Your task to perform on an android device: Go to Reddit.com Image 0: 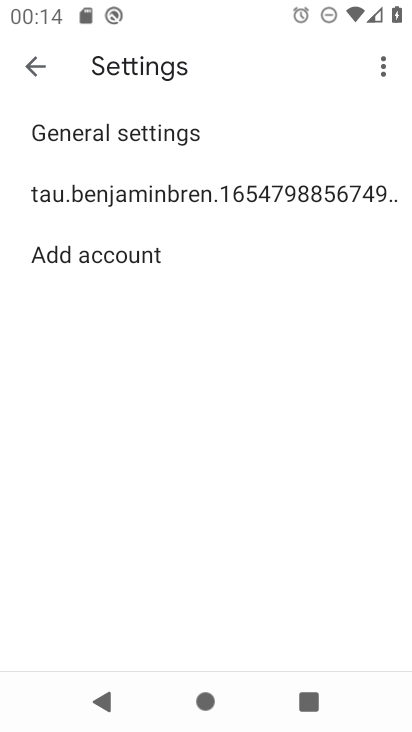
Step 0: press home button
Your task to perform on an android device: Go to Reddit.com Image 1: 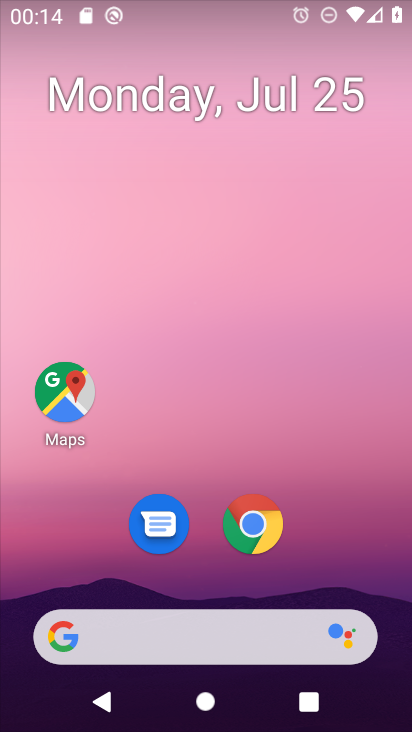
Step 1: click (256, 524)
Your task to perform on an android device: Go to Reddit.com Image 2: 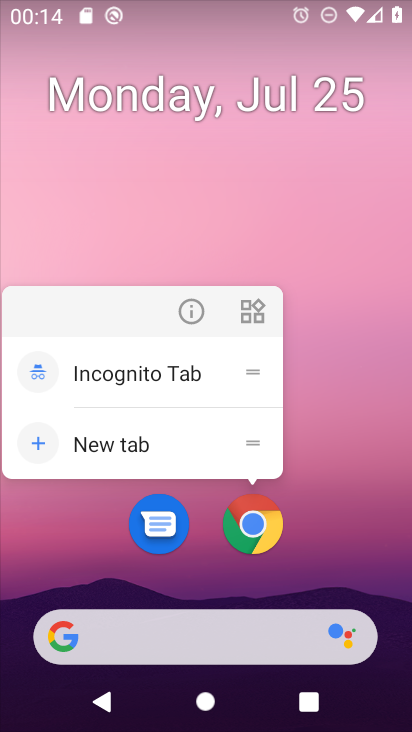
Step 2: click (244, 524)
Your task to perform on an android device: Go to Reddit.com Image 3: 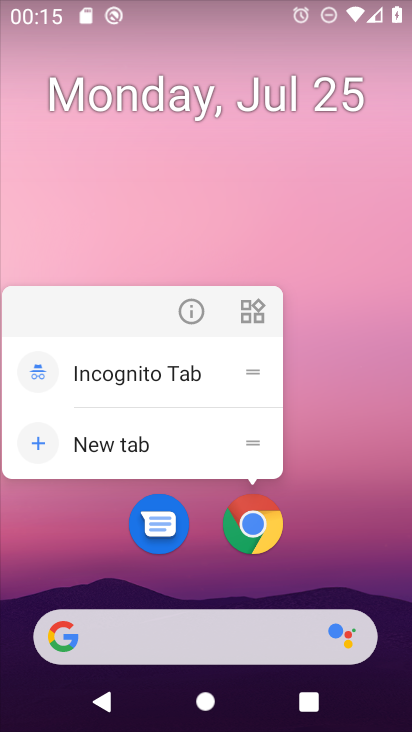
Step 3: click (244, 524)
Your task to perform on an android device: Go to Reddit.com Image 4: 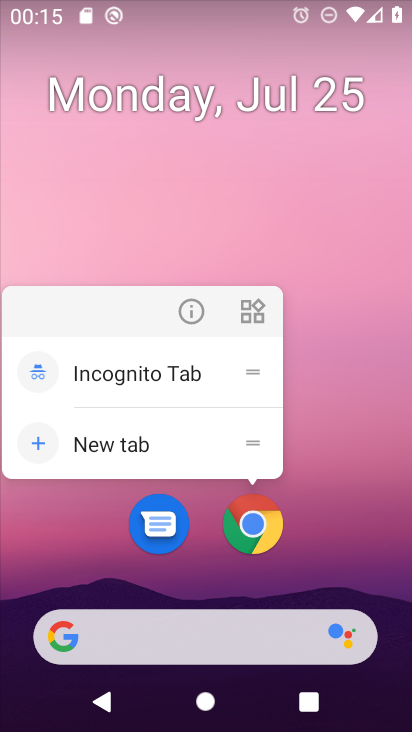
Step 4: click (253, 520)
Your task to perform on an android device: Go to Reddit.com Image 5: 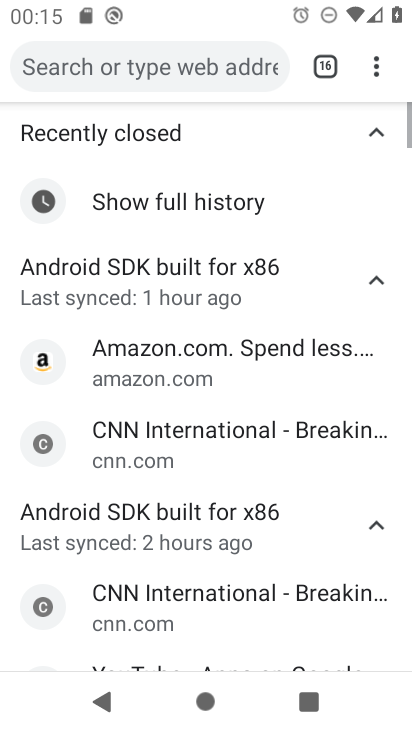
Step 5: drag from (374, 69) to (215, 137)
Your task to perform on an android device: Go to Reddit.com Image 6: 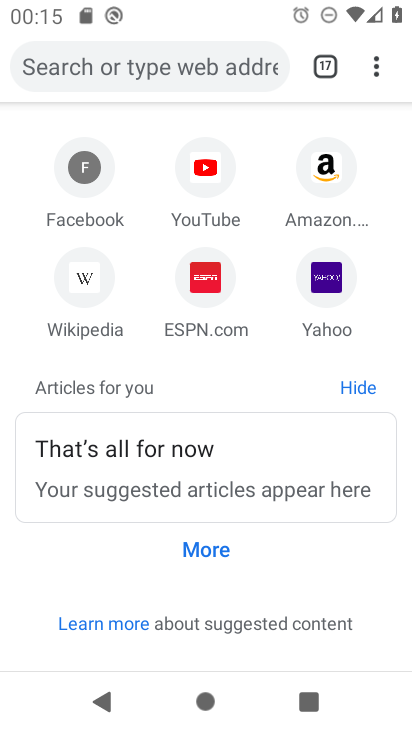
Step 6: click (167, 62)
Your task to perform on an android device: Go to Reddit.com Image 7: 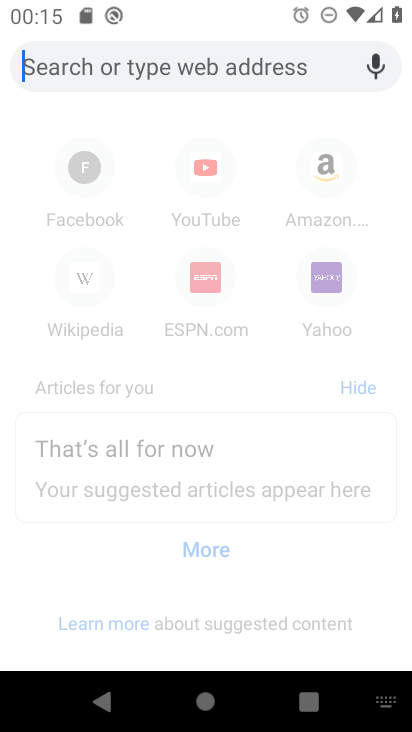
Step 7: type "reddit.com"
Your task to perform on an android device: Go to Reddit.com Image 8: 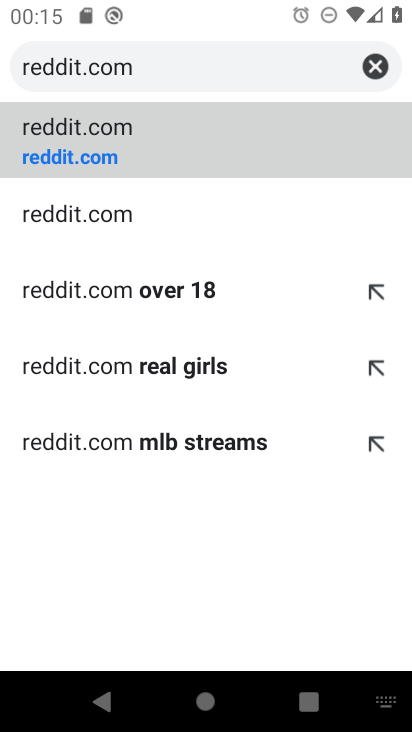
Step 8: click (123, 147)
Your task to perform on an android device: Go to Reddit.com Image 9: 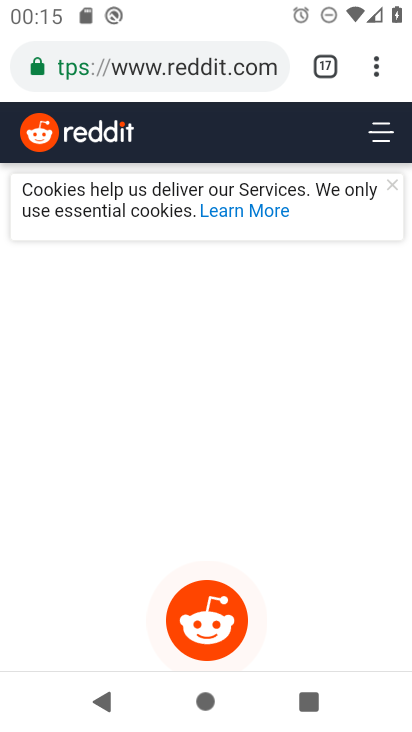
Step 9: task complete